Your task to perform on an android device: change the clock display to analog Image 0: 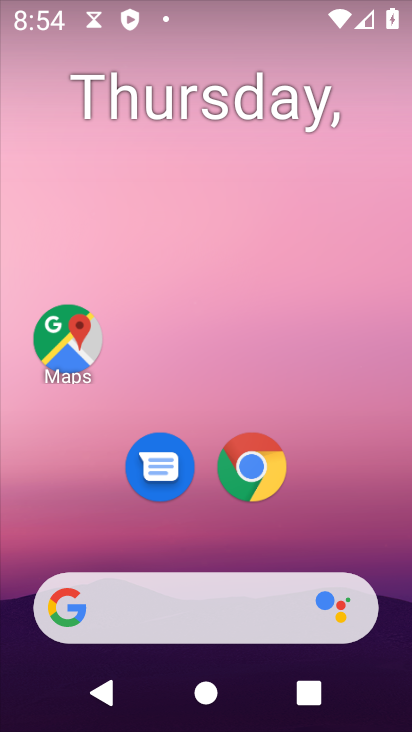
Step 0: drag from (340, 514) to (347, 53)
Your task to perform on an android device: change the clock display to analog Image 1: 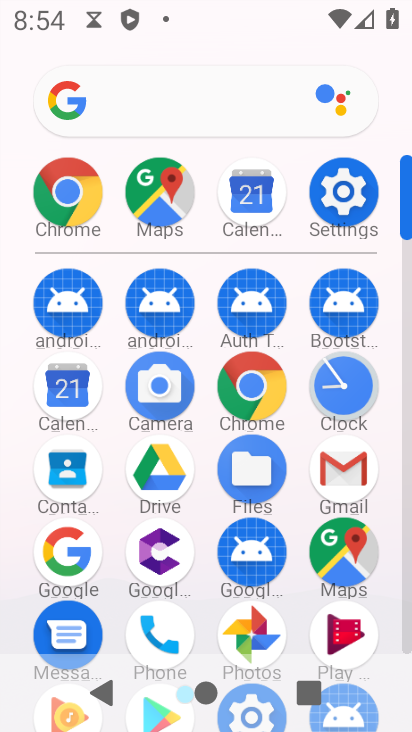
Step 1: click (354, 376)
Your task to perform on an android device: change the clock display to analog Image 2: 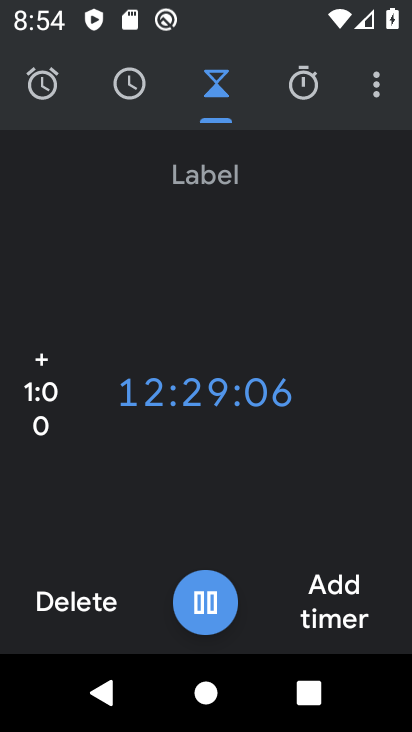
Step 2: click (374, 92)
Your task to perform on an android device: change the clock display to analog Image 3: 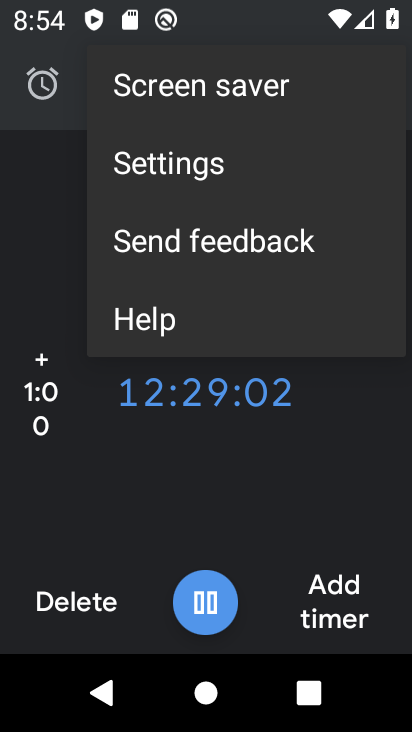
Step 3: click (306, 172)
Your task to perform on an android device: change the clock display to analog Image 4: 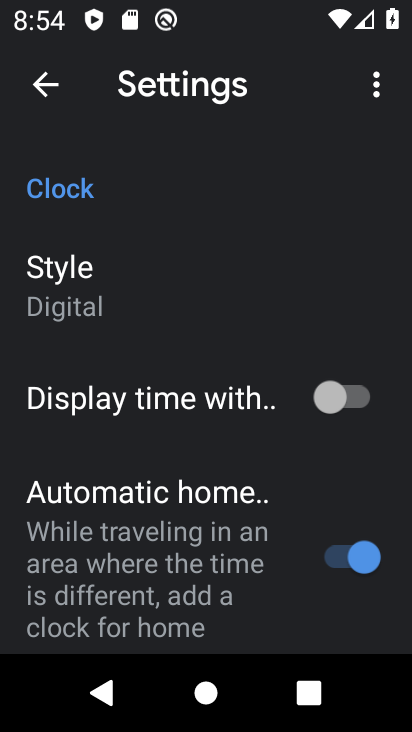
Step 4: click (94, 265)
Your task to perform on an android device: change the clock display to analog Image 5: 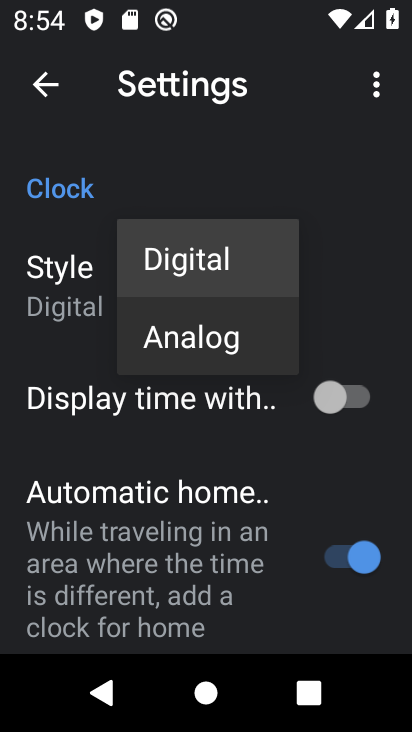
Step 5: click (172, 334)
Your task to perform on an android device: change the clock display to analog Image 6: 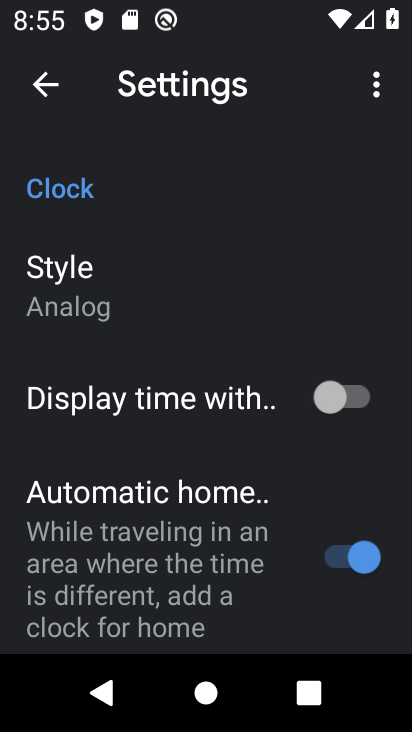
Step 6: task complete